Your task to perform on an android device: Is it going to rain this weekend? Image 0: 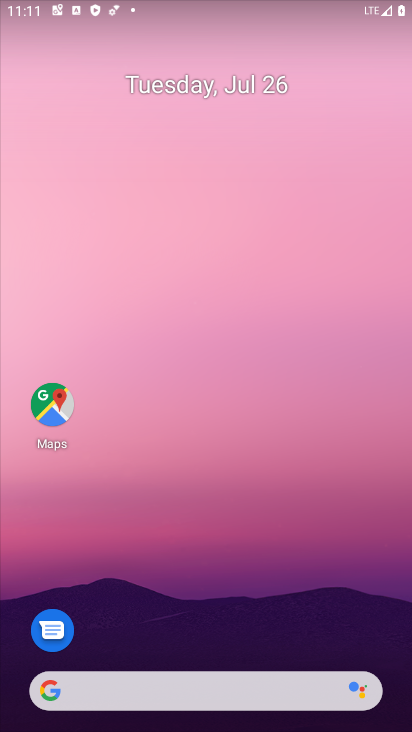
Step 0: drag from (312, 502) to (319, 120)
Your task to perform on an android device: Is it going to rain this weekend? Image 1: 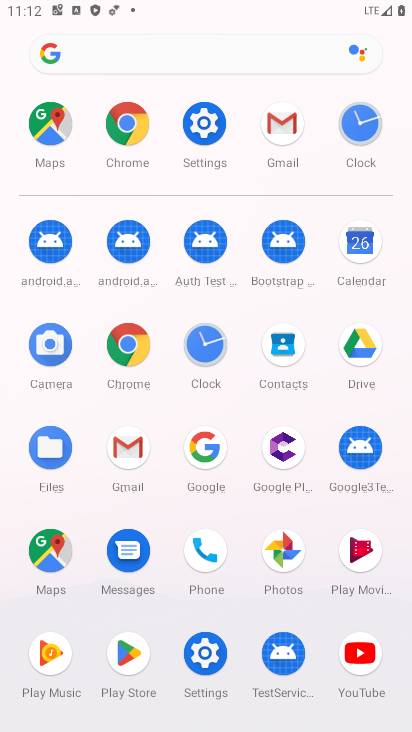
Step 1: click (206, 459)
Your task to perform on an android device: Is it going to rain this weekend? Image 2: 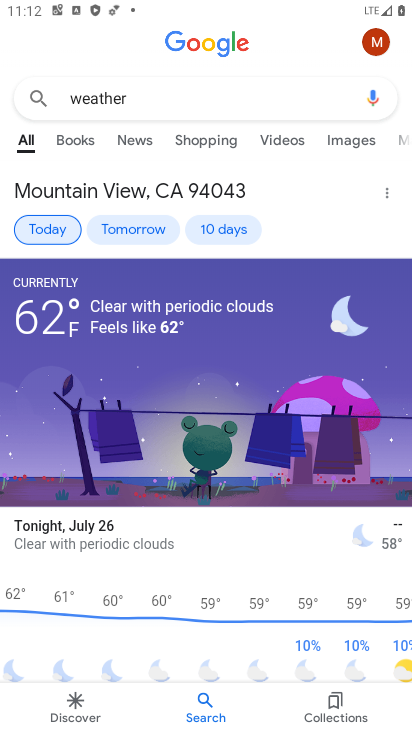
Step 2: task complete